Your task to perform on an android device: Go to wifi settings Image 0: 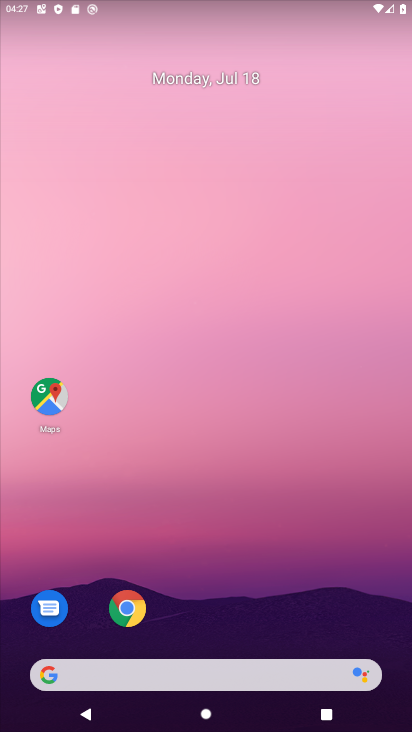
Step 0: drag from (160, 8) to (172, 347)
Your task to perform on an android device: Go to wifi settings Image 1: 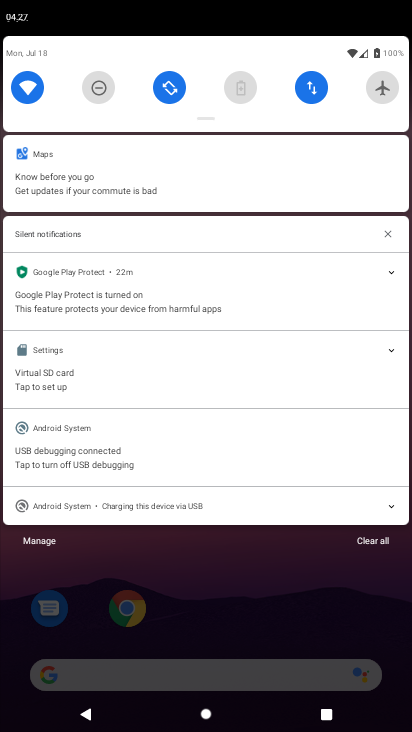
Step 1: click (19, 78)
Your task to perform on an android device: Go to wifi settings Image 2: 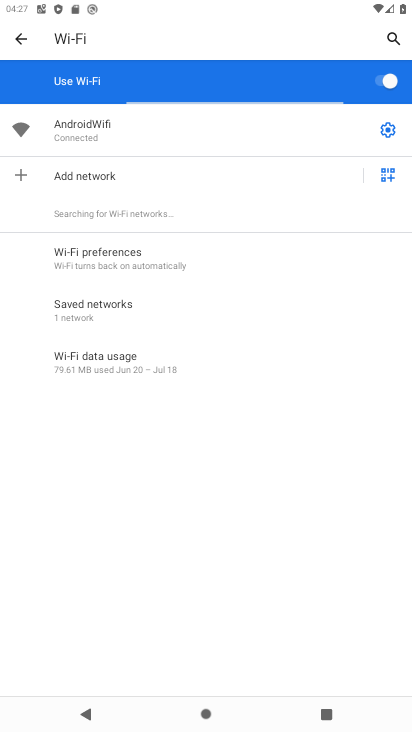
Step 2: task complete